Your task to perform on an android device: set the stopwatch Image 0: 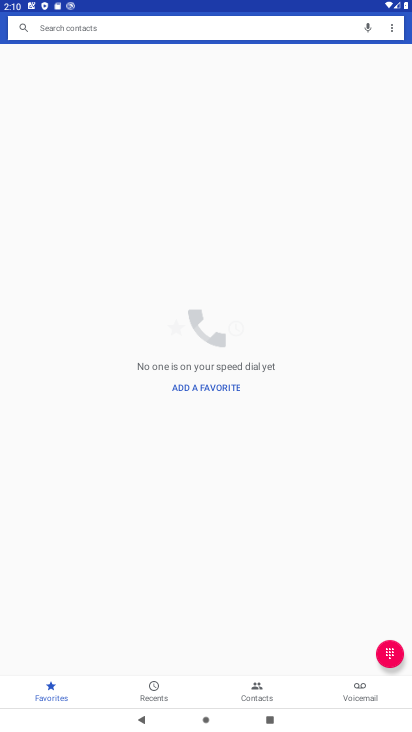
Step 0: press home button
Your task to perform on an android device: set the stopwatch Image 1: 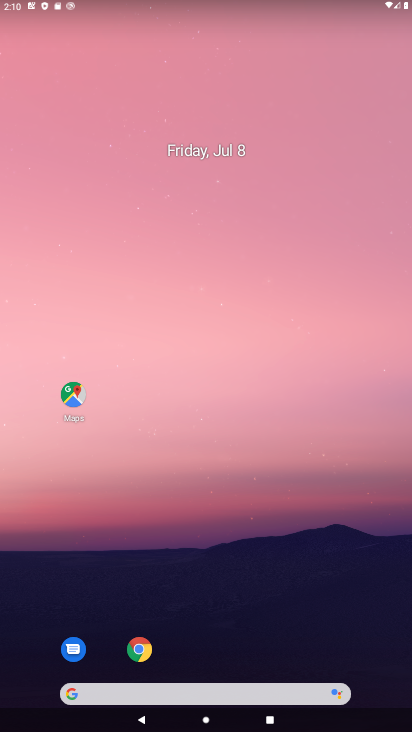
Step 1: drag from (383, 670) to (326, 139)
Your task to perform on an android device: set the stopwatch Image 2: 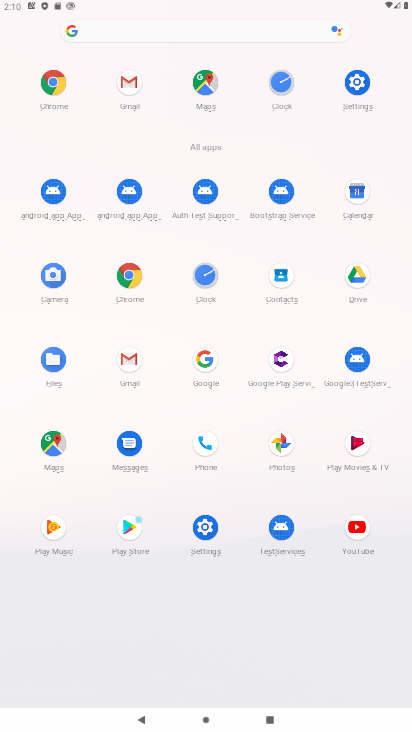
Step 2: click (206, 277)
Your task to perform on an android device: set the stopwatch Image 3: 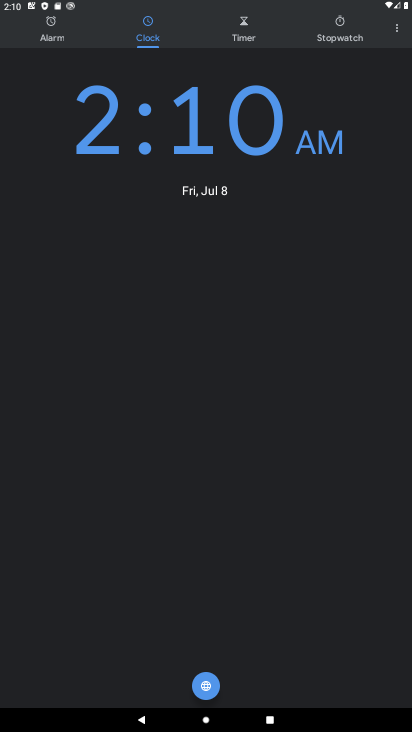
Step 3: click (336, 26)
Your task to perform on an android device: set the stopwatch Image 4: 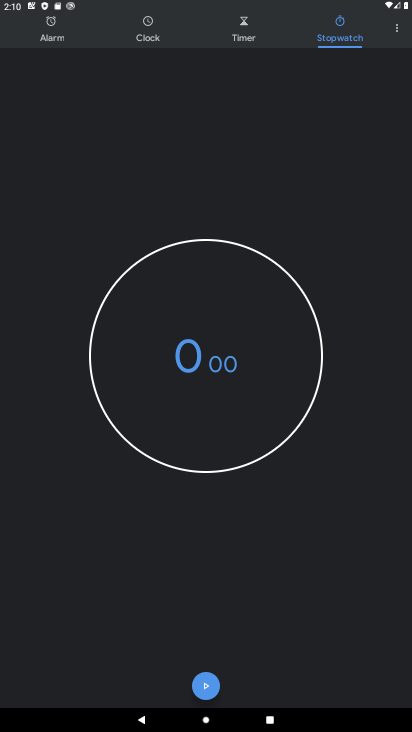
Step 4: task complete